Your task to perform on an android device: find snoozed emails in the gmail app Image 0: 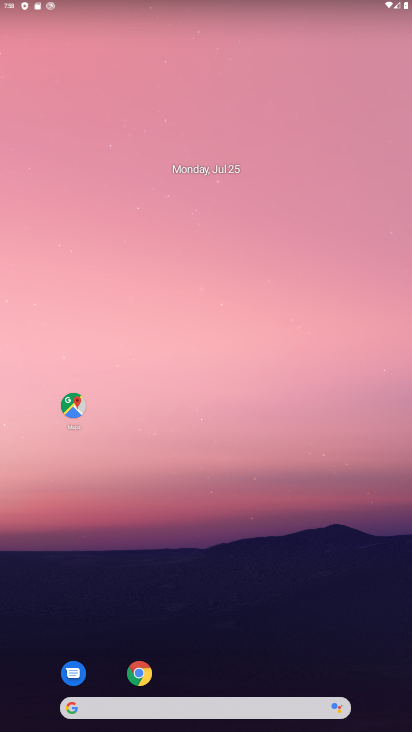
Step 0: click (239, 123)
Your task to perform on an android device: find snoozed emails in the gmail app Image 1: 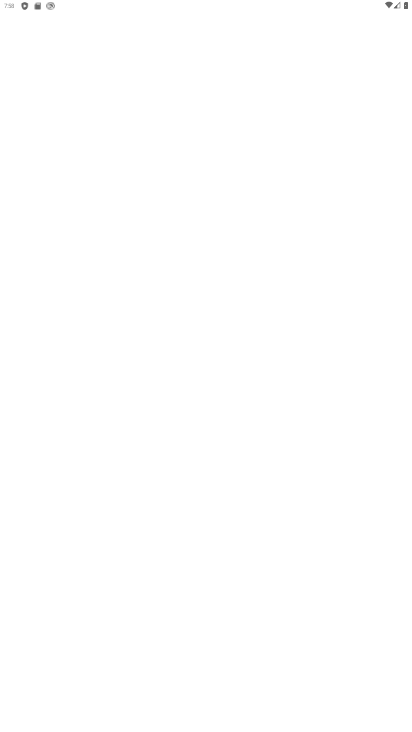
Step 1: press home button
Your task to perform on an android device: find snoozed emails in the gmail app Image 2: 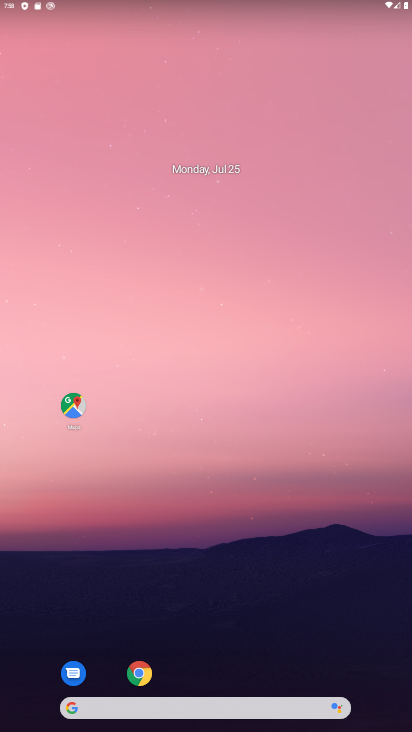
Step 2: drag from (247, 573) to (255, 83)
Your task to perform on an android device: find snoozed emails in the gmail app Image 3: 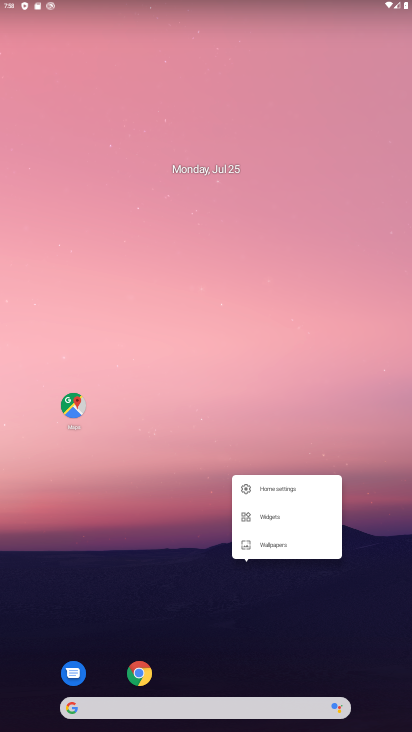
Step 3: click (267, 612)
Your task to perform on an android device: find snoozed emails in the gmail app Image 4: 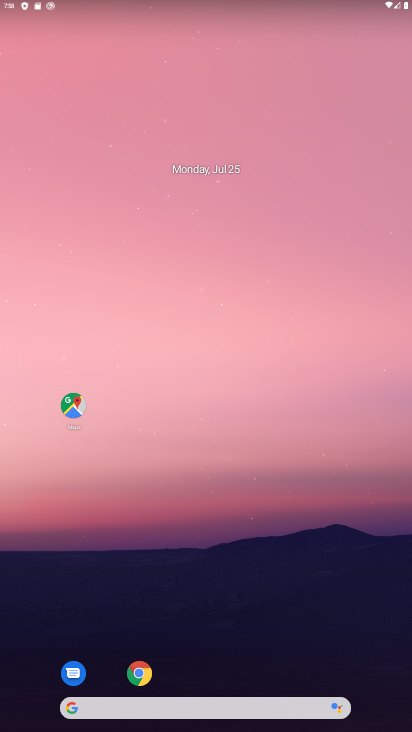
Step 4: drag from (204, 649) to (177, 168)
Your task to perform on an android device: find snoozed emails in the gmail app Image 5: 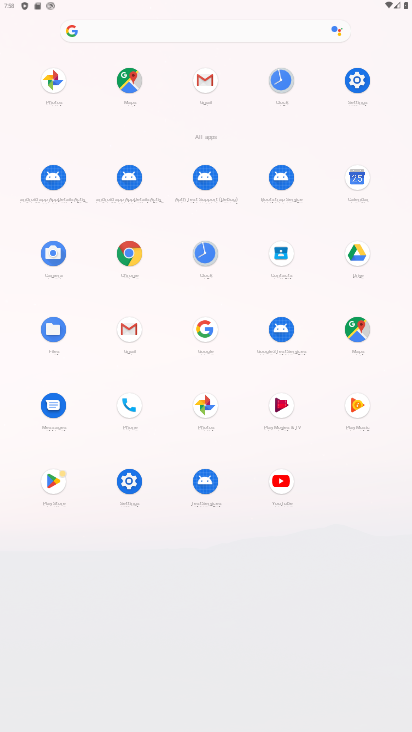
Step 5: click (135, 330)
Your task to perform on an android device: find snoozed emails in the gmail app Image 6: 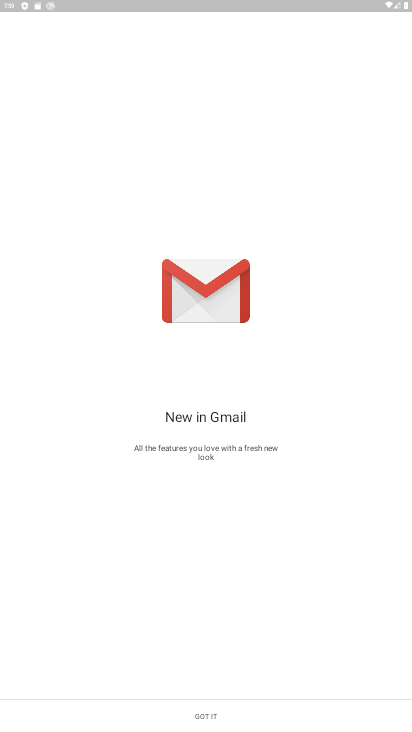
Step 6: click (264, 707)
Your task to perform on an android device: find snoozed emails in the gmail app Image 7: 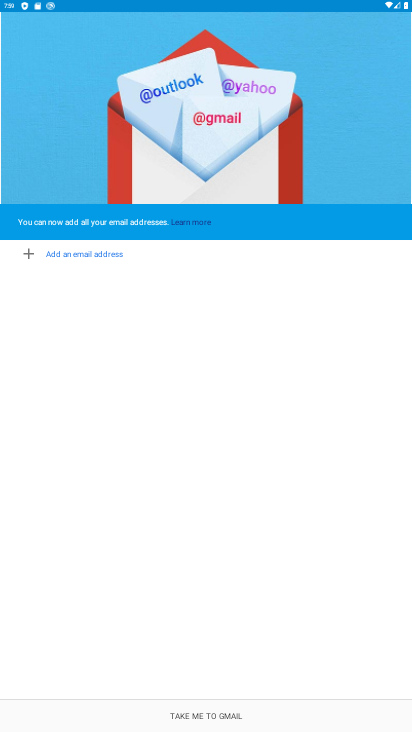
Step 7: click (241, 705)
Your task to perform on an android device: find snoozed emails in the gmail app Image 8: 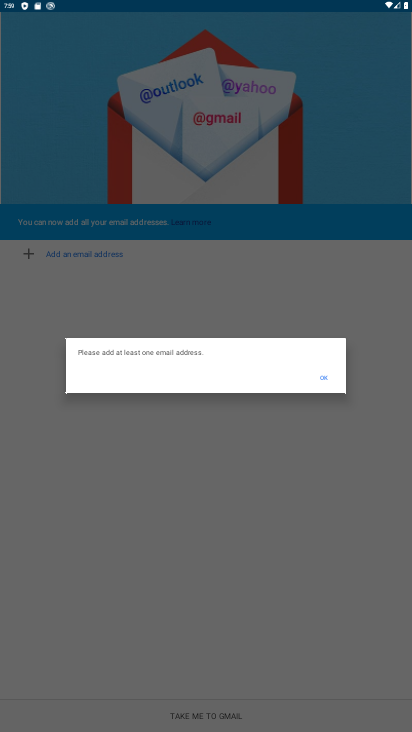
Step 8: task complete